Your task to perform on an android device: toggle priority inbox in the gmail app Image 0: 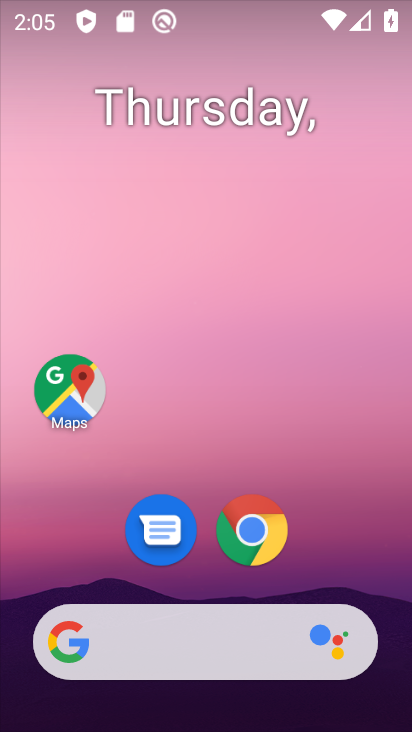
Step 0: drag from (174, 707) to (210, 17)
Your task to perform on an android device: toggle priority inbox in the gmail app Image 1: 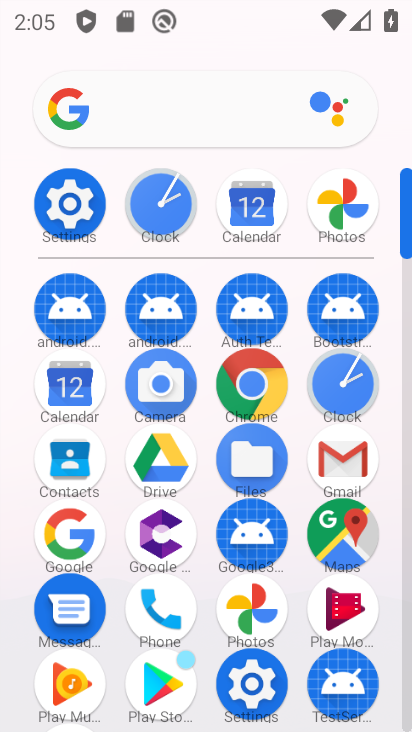
Step 1: click (344, 465)
Your task to perform on an android device: toggle priority inbox in the gmail app Image 2: 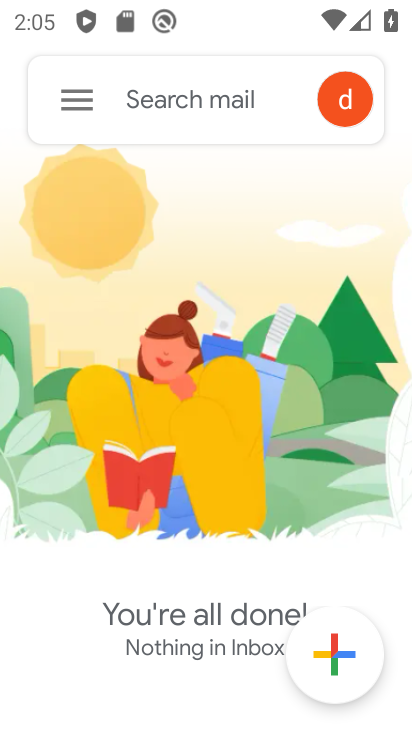
Step 2: click (76, 105)
Your task to perform on an android device: toggle priority inbox in the gmail app Image 3: 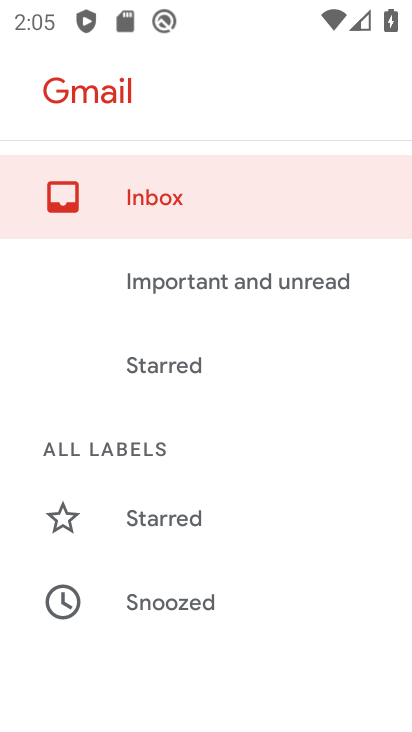
Step 3: drag from (180, 681) to (161, 37)
Your task to perform on an android device: toggle priority inbox in the gmail app Image 4: 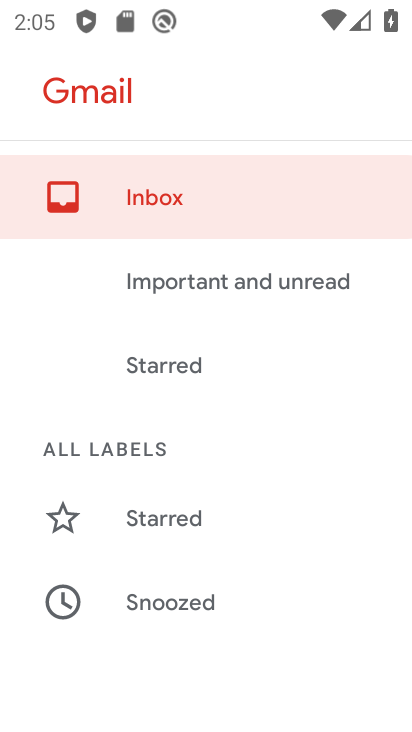
Step 4: drag from (203, 619) to (167, 118)
Your task to perform on an android device: toggle priority inbox in the gmail app Image 5: 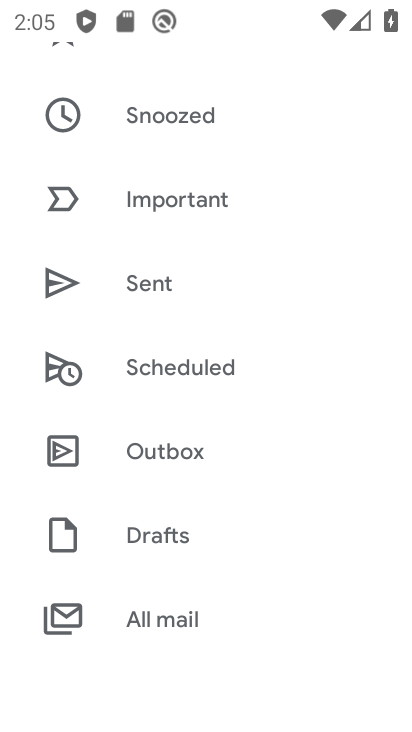
Step 5: drag from (101, 528) to (143, 0)
Your task to perform on an android device: toggle priority inbox in the gmail app Image 6: 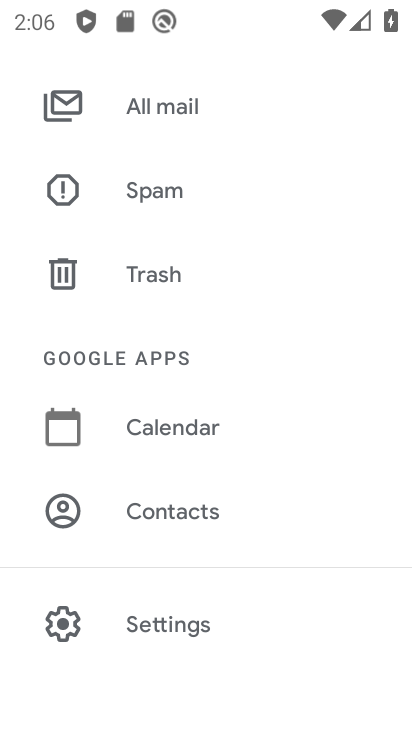
Step 6: click (179, 622)
Your task to perform on an android device: toggle priority inbox in the gmail app Image 7: 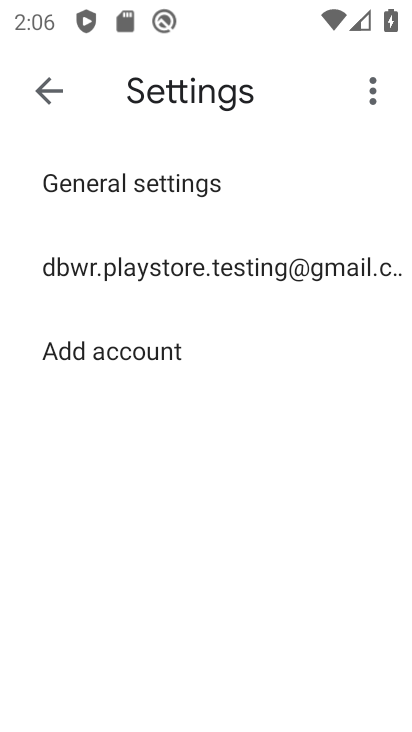
Step 7: click (237, 252)
Your task to perform on an android device: toggle priority inbox in the gmail app Image 8: 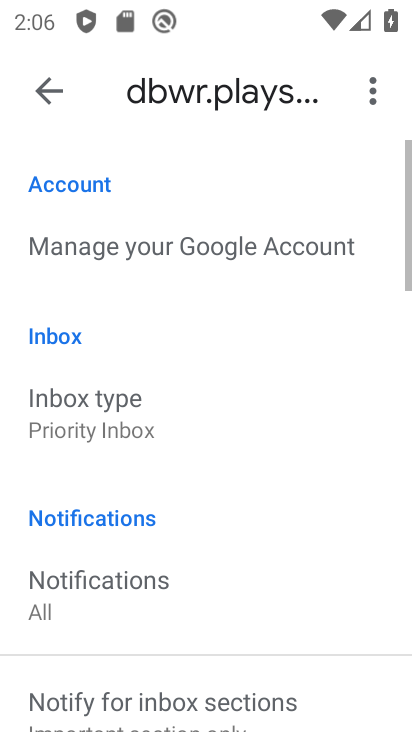
Step 8: task complete